Your task to perform on an android device: Open Yahoo.com Image 0: 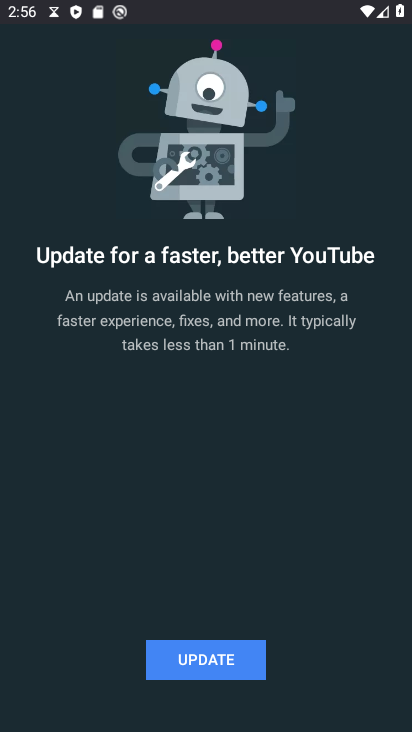
Step 0: drag from (256, 516) to (300, 174)
Your task to perform on an android device: Open Yahoo.com Image 1: 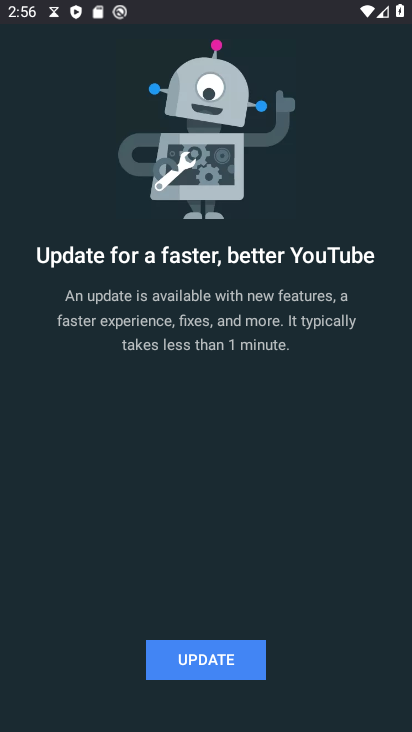
Step 1: press home button
Your task to perform on an android device: Open Yahoo.com Image 2: 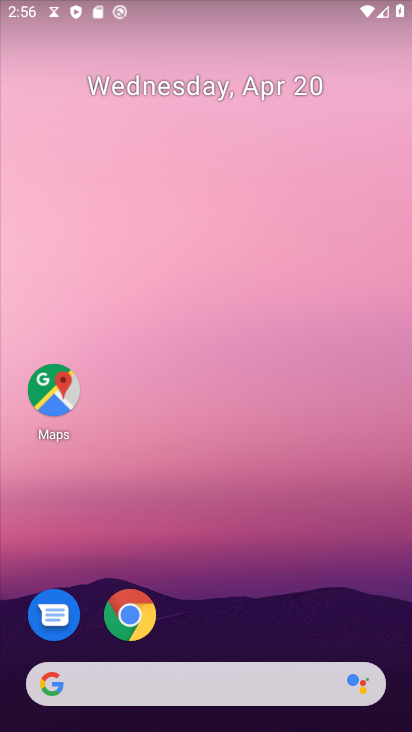
Step 2: click (126, 609)
Your task to perform on an android device: Open Yahoo.com Image 3: 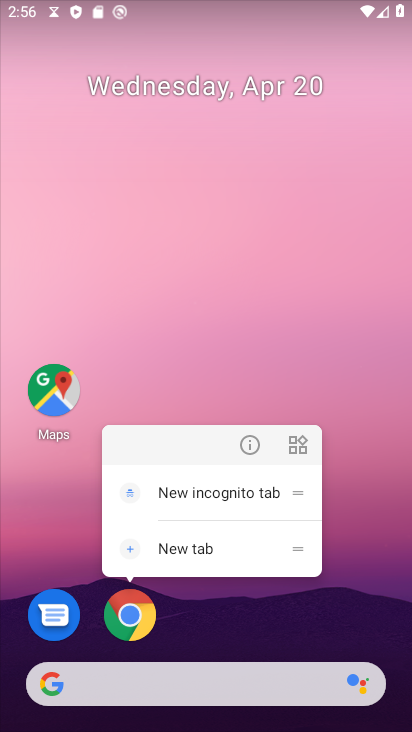
Step 3: click (245, 446)
Your task to perform on an android device: Open Yahoo.com Image 4: 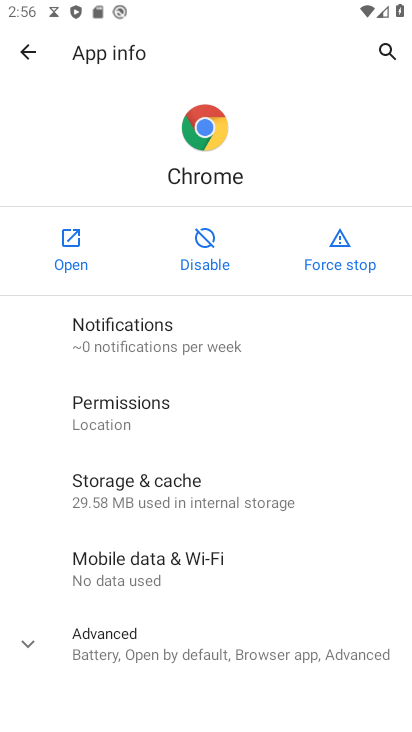
Step 4: click (70, 231)
Your task to perform on an android device: Open Yahoo.com Image 5: 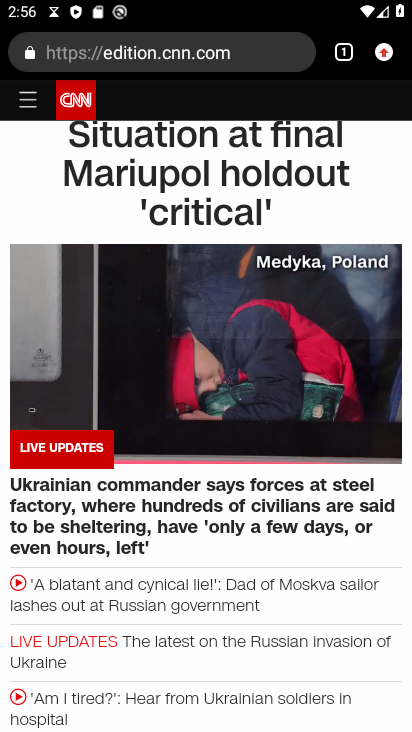
Step 5: click (215, 49)
Your task to perform on an android device: Open Yahoo.com Image 6: 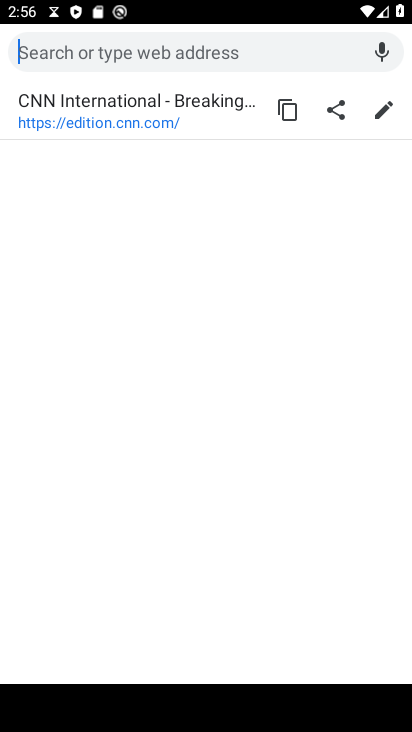
Step 6: type "yahoo.com"
Your task to perform on an android device: Open Yahoo.com Image 7: 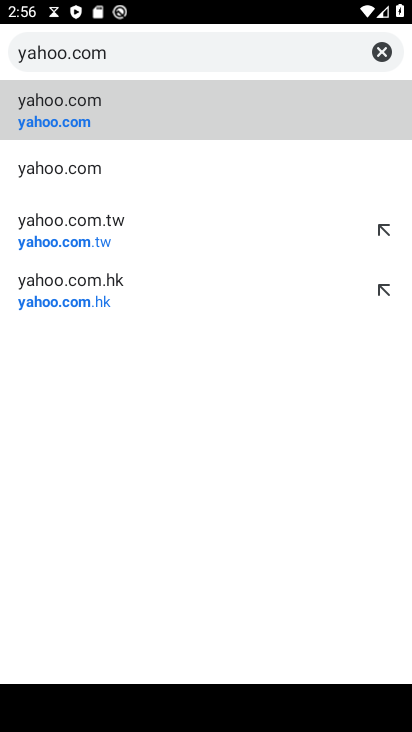
Step 7: click (58, 118)
Your task to perform on an android device: Open Yahoo.com Image 8: 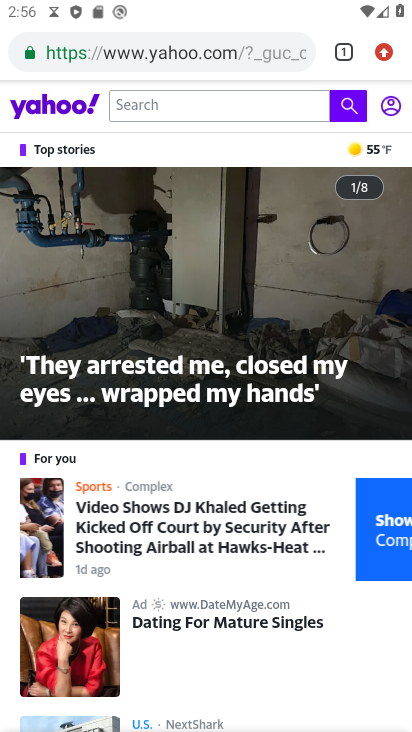
Step 8: task complete